Your task to perform on an android device: What's the weather? Image 0: 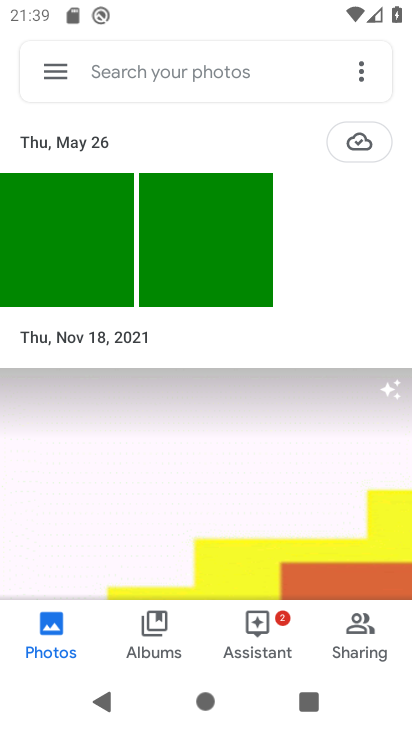
Step 0: press home button
Your task to perform on an android device: What's the weather? Image 1: 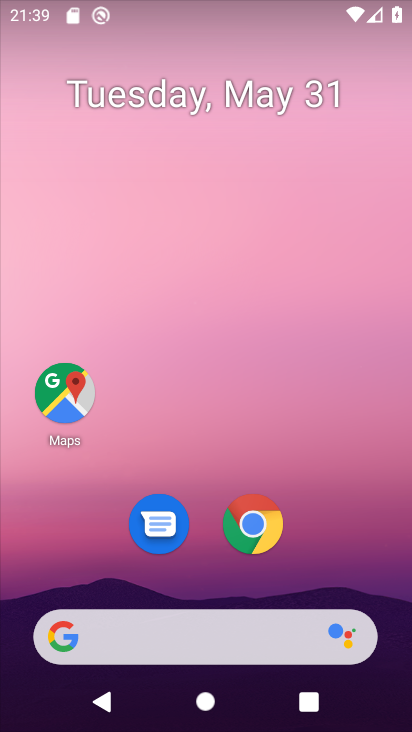
Step 1: click (151, 635)
Your task to perform on an android device: What's the weather? Image 2: 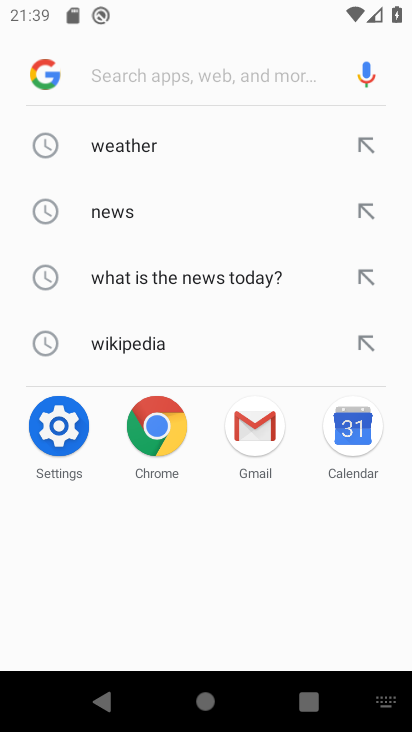
Step 2: click (142, 146)
Your task to perform on an android device: What's the weather? Image 3: 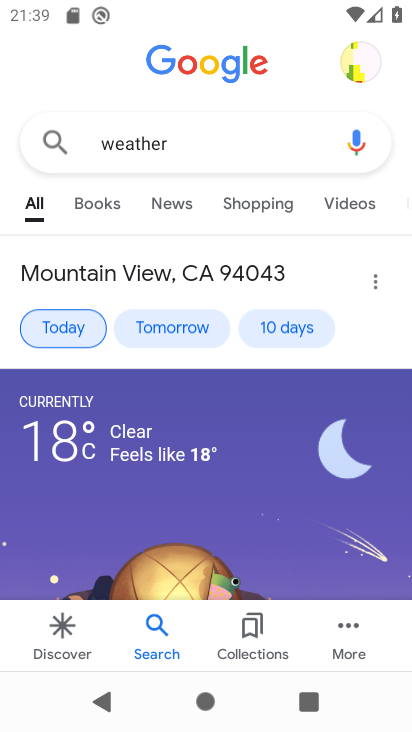
Step 3: click (74, 321)
Your task to perform on an android device: What's the weather? Image 4: 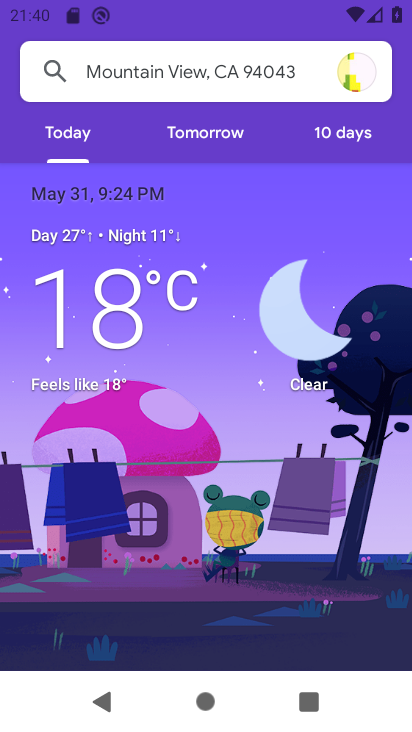
Step 4: task complete